Your task to perform on an android device: toggle data saver in the chrome app Image 0: 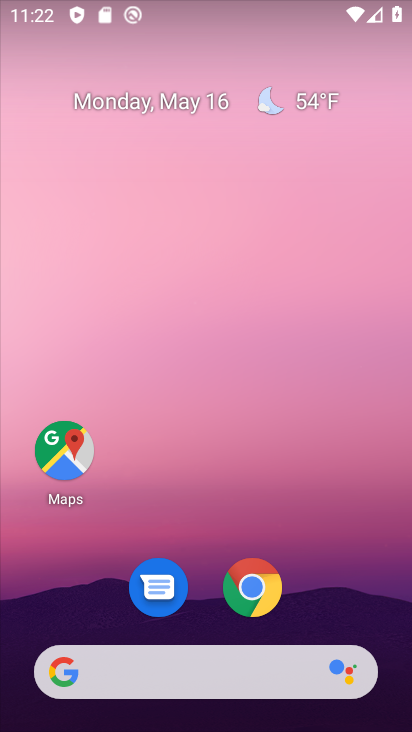
Step 0: click (262, 575)
Your task to perform on an android device: toggle data saver in the chrome app Image 1: 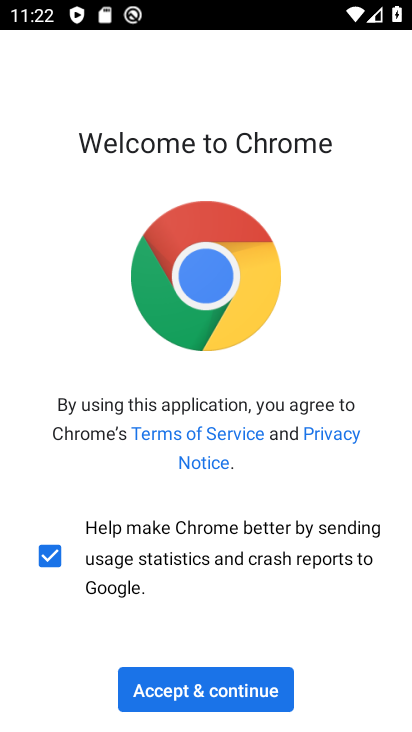
Step 1: click (216, 679)
Your task to perform on an android device: toggle data saver in the chrome app Image 2: 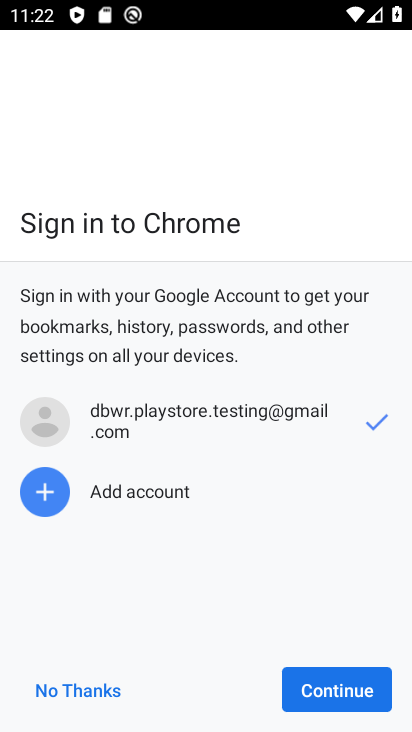
Step 2: click (298, 688)
Your task to perform on an android device: toggle data saver in the chrome app Image 3: 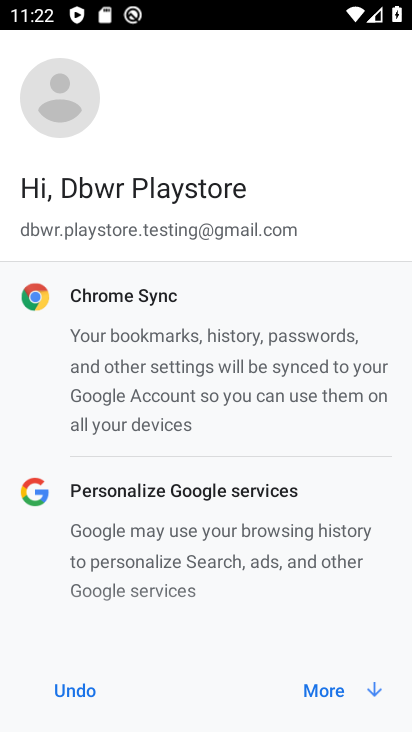
Step 3: click (300, 686)
Your task to perform on an android device: toggle data saver in the chrome app Image 4: 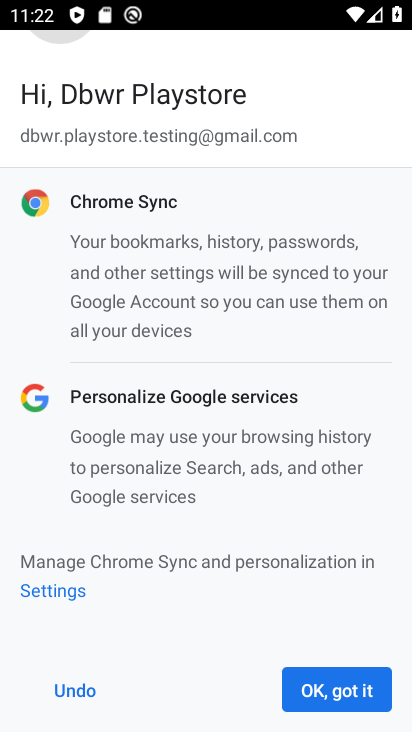
Step 4: click (300, 686)
Your task to perform on an android device: toggle data saver in the chrome app Image 5: 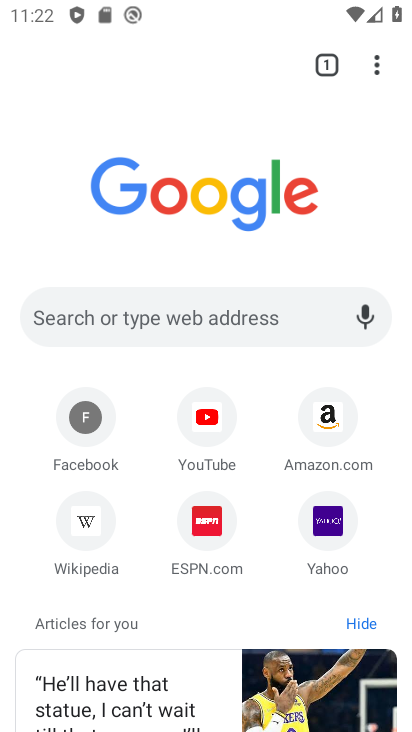
Step 5: click (372, 55)
Your task to perform on an android device: toggle data saver in the chrome app Image 6: 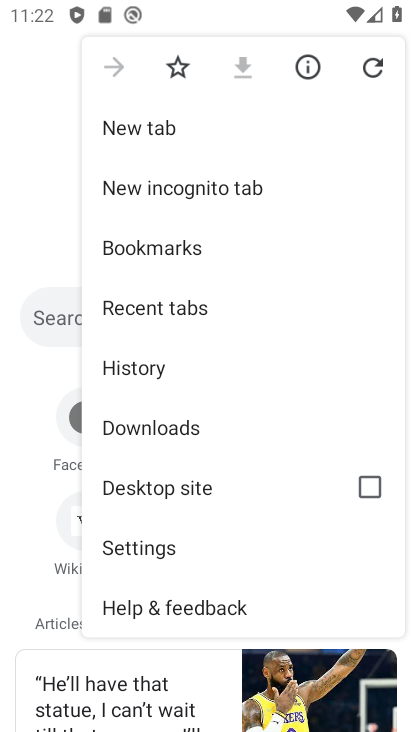
Step 6: click (155, 555)
Your task to perform on an android device: toggle data saver in the chrome app Image 7: 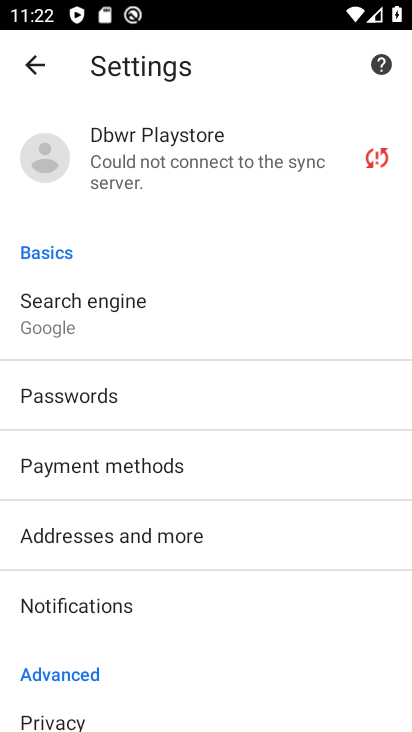
Step 7: drag from (125, 577) to (155, 353)
Your task to perform on an android device: toggle data saver in the chrome app Image 8: 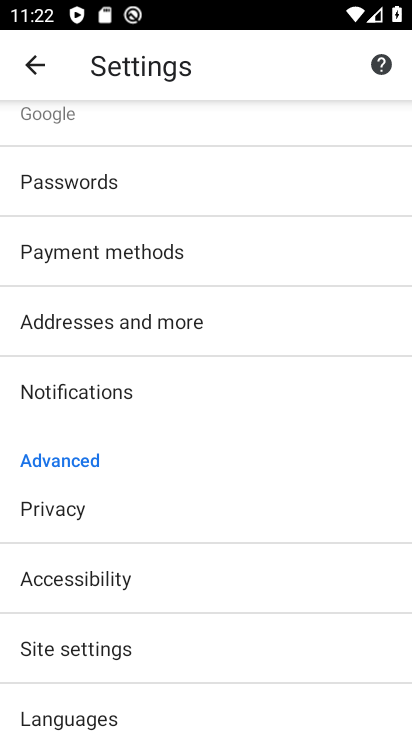
Step 8: drag from (128, 575) to (136, 455)
Your task to perform on an android device: toggle data saver in the chrome app Image 9: 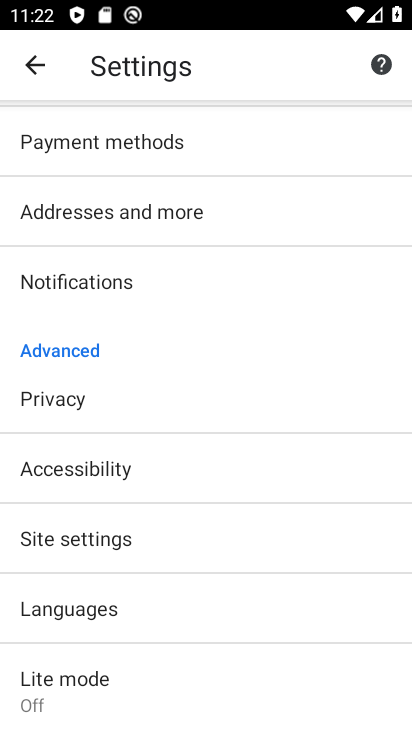
Step 9: click (89, 667)
Your task to perform on an android device: toggle data saver in the chrome app Image 10: 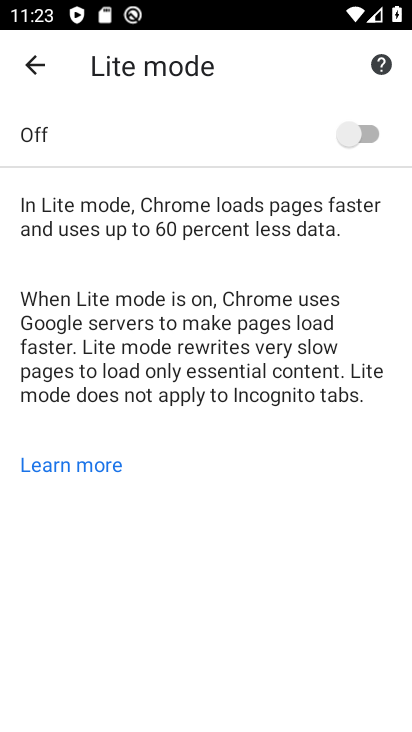
Step 10: click (360, 139)
Your task to perform on an android device: toggle data saver in the chrome app Image 11: 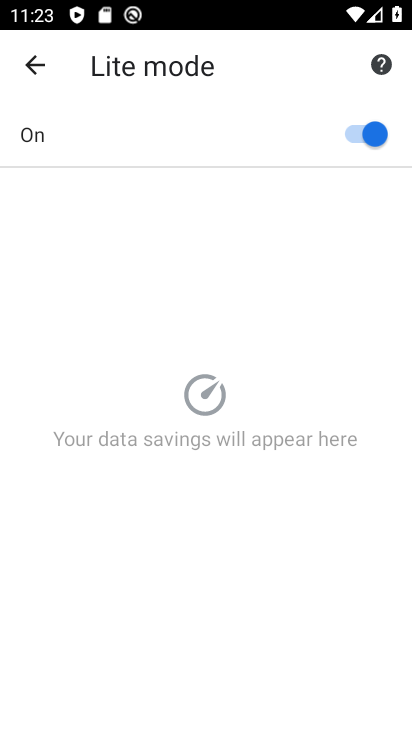
Step 11: task complete